Your task to perform on an android device: Open privacy settings Image 0: 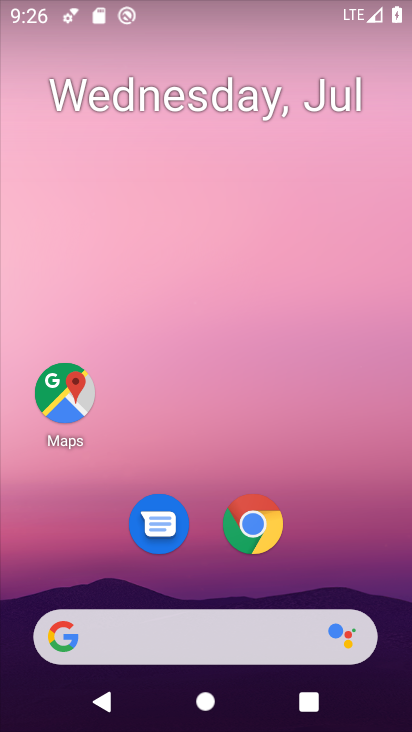
Step 0: drag from (309, 525) to (252, 47)
Your task to perform on an android device: Open privacy settings Image 1: 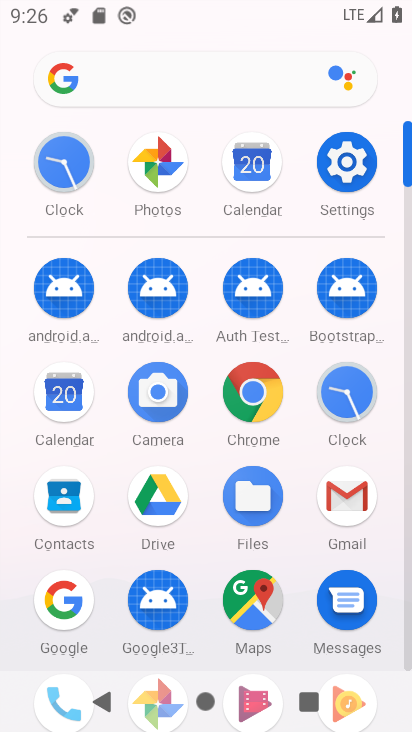
Step 1: click (341, 168)
Your task to perform on an android device: Open privacy settings Image 2: 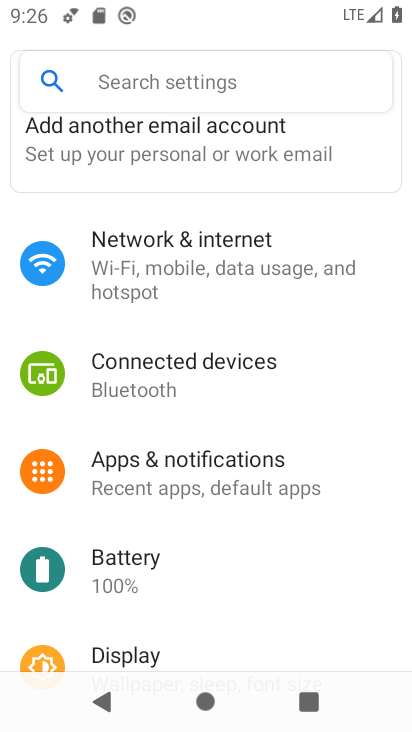
Step 2: drag from (212, 538) to (219, 112)
Your task to perform on an android device: Open privacy settings Image 3: 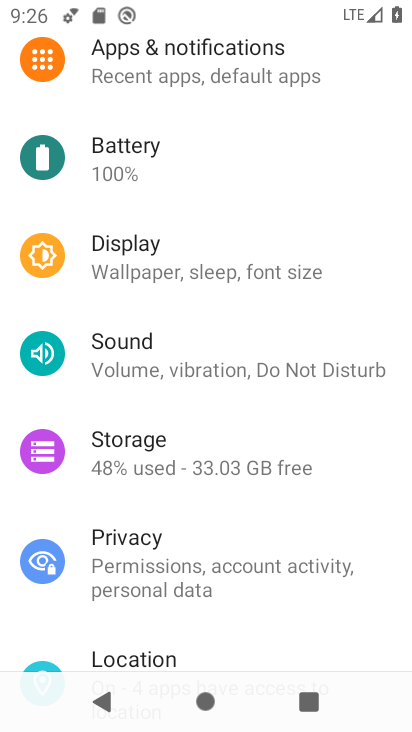
Step 3: click (255, 562)
Your task to perform on an android device: Open privacy settings Image 4: 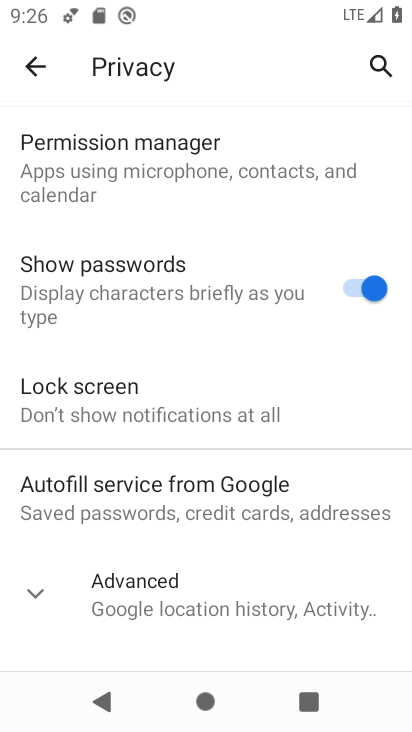
Step 4: task complete